Your task to perform on an android device: Open privacy settings Image 0: 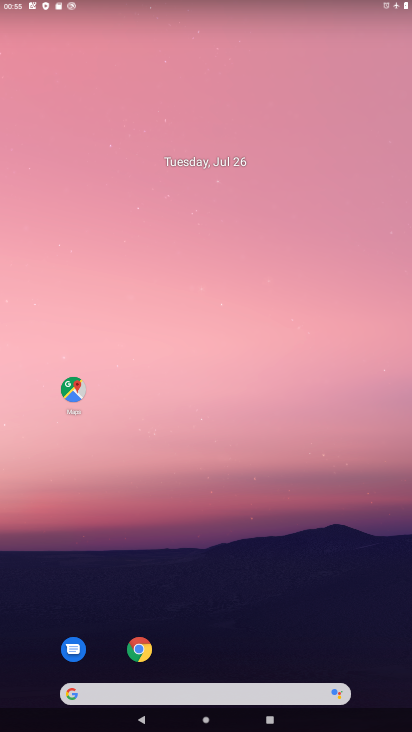
Step 0: drag from (214, 728) to (212, 153)
Your task to perform on an android device: Open privacy settings Image 1: 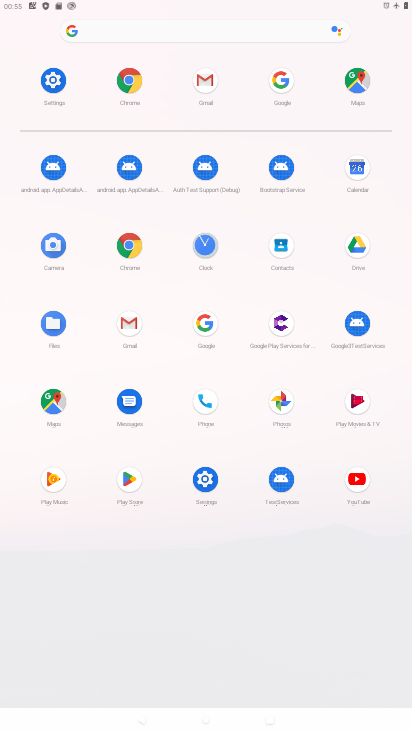
Step 1: click (50, 76)
Your task to perform on an android device: Open privacy settings Image 2: 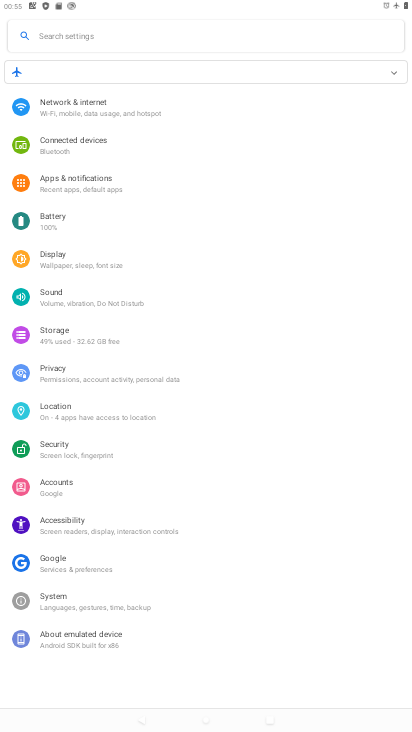
Step 2: click (60, 369)
Your task to perform on an android device: Open privacy settings Image 3: 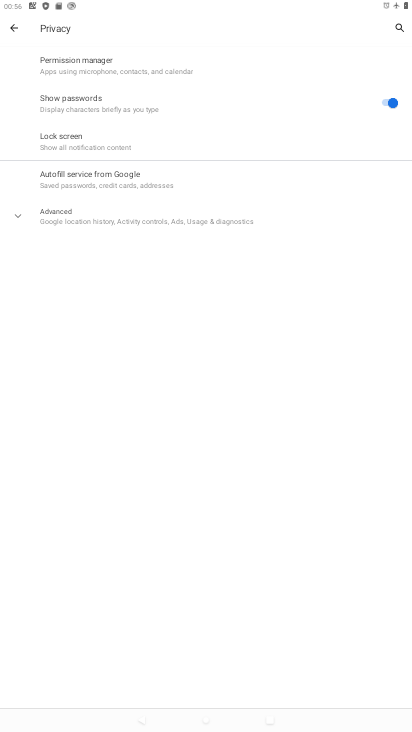
Step 3: task complete